Your task to perform on an android device: Go to network settings Image 0: 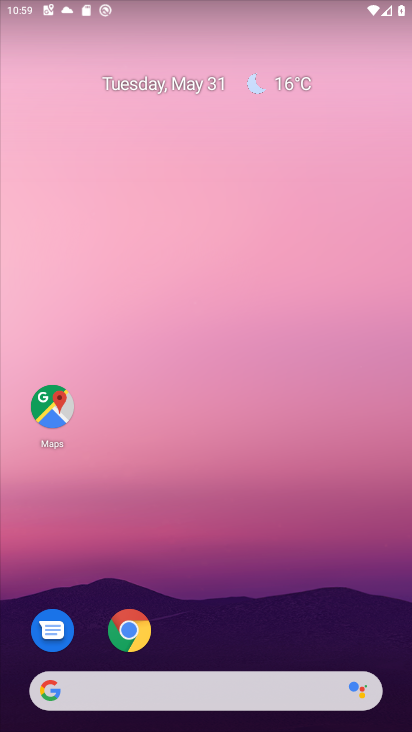
Step 0: drag from (346, 559) to (230, 122)
Your task to perform on an android device: Go to network settings Image 1: 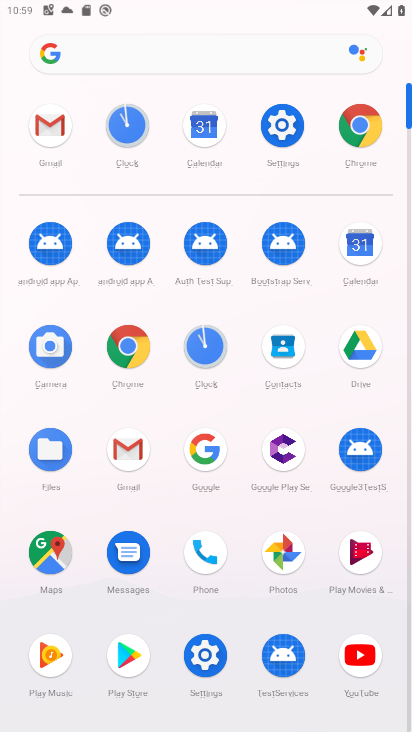
Step 1: click (288, 121)
Your task to perform on an android device: Go to network settings Image 2: 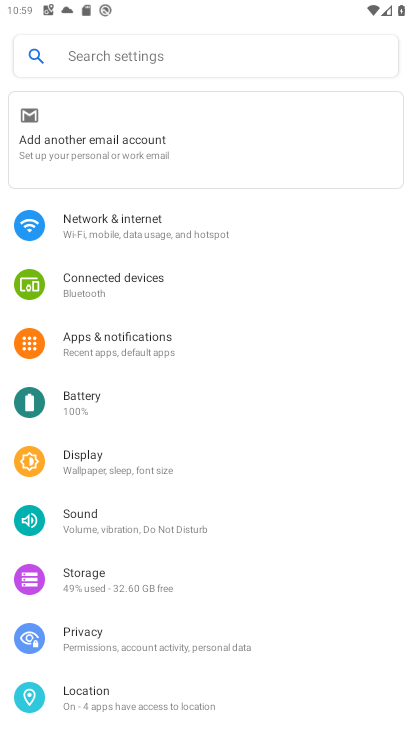
Step 2: click (146, 235)
Your task to perform on an android device: Go to network settings Image 3: 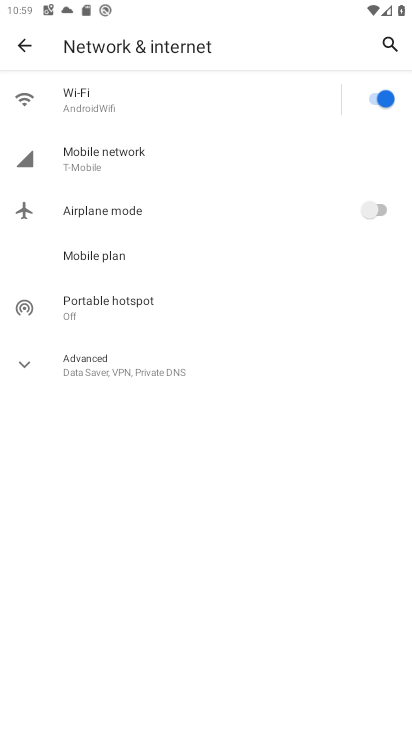
Step 3: click (129, 359)
Your task to perform on an android device: Go to network settings Image 4: 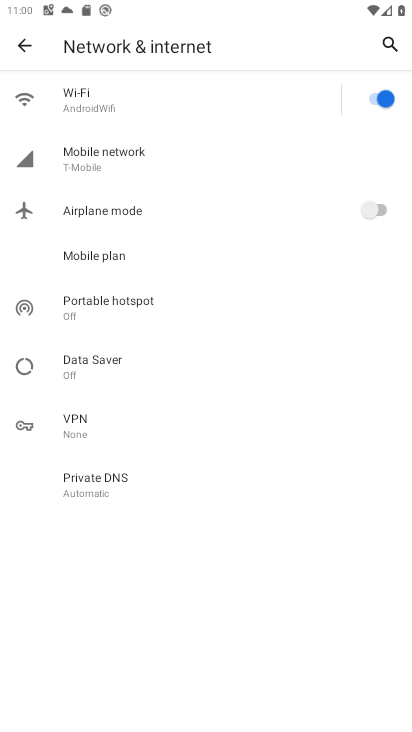
Step 4: task complete